Your task to perform on an android device: remove spam from my inbox in the gmail app Image 0: 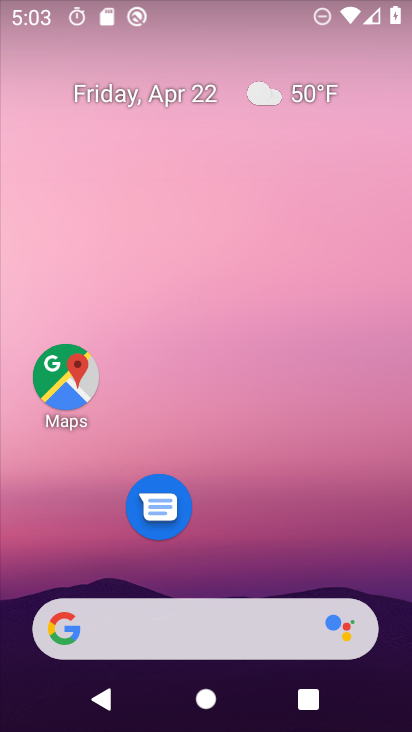
Step 0: drag from (195, 539) to (265, 41)
Your task to perform on an android device: remove spam from my inbox in the gmail app Image 1: 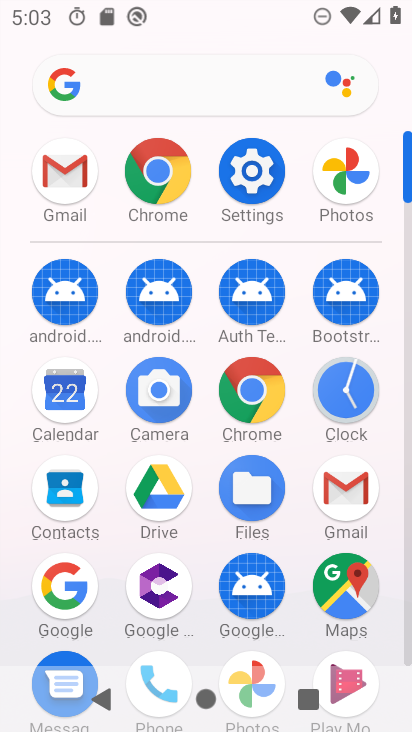
Step 1: click (59, 174)
Your task to perform on an android device: remove spam from my inbox in the gmail app Image 2: 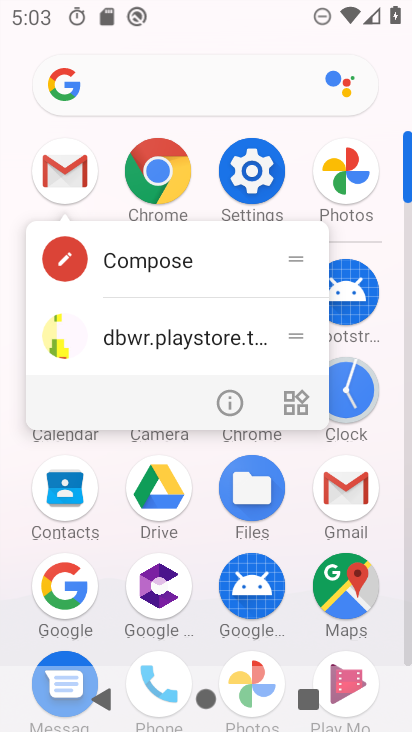
Step 2: click (55, 160)
Your task to perform on an android device: remove spam from my inbox in the gmail app Image 3: 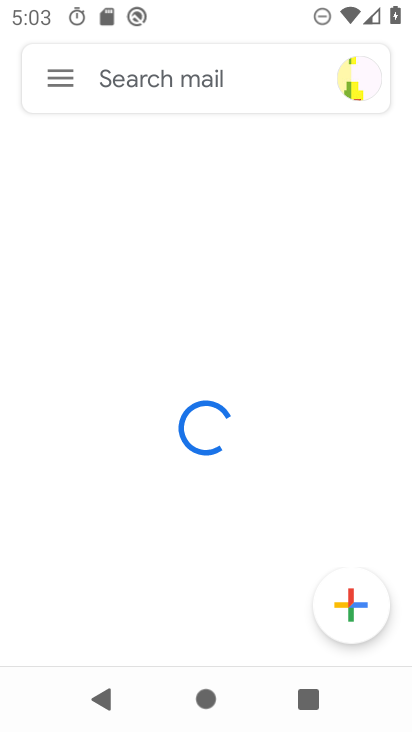
Step 3: click (60, 80)
Your task to perform on an android device: remove spam from my inbox in the gmail app Image 4: 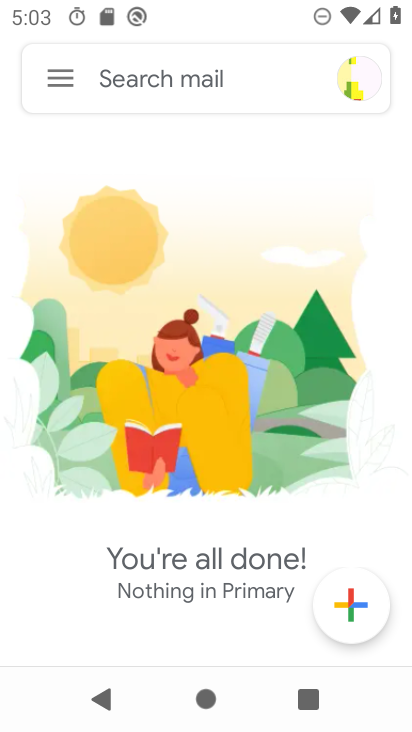
Step 4: click (70, 75)
Your task to perform on an android device: remove spam from my inbox in the gmail app Image 5: 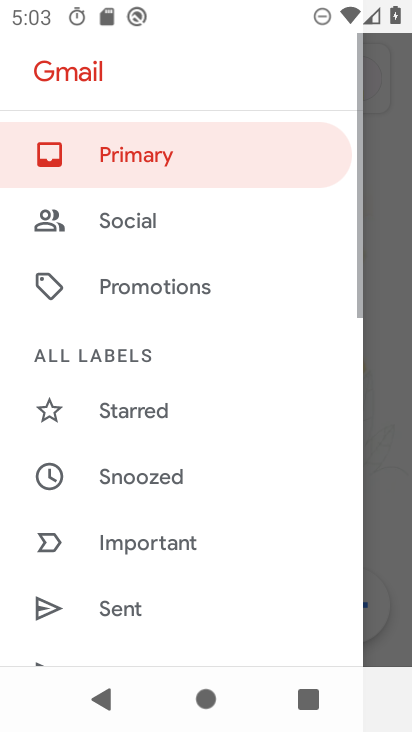
Step 5: drag from (188, 544) to (270, 33)
Your task to perform on an android device: remove spam from my inbox in the gmail app Image 6: 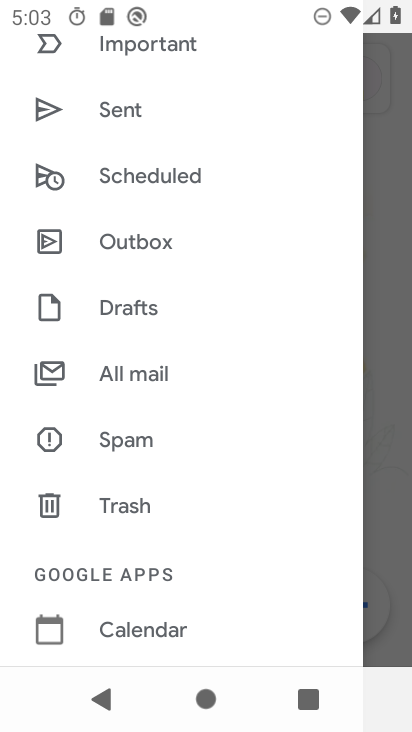
Step 6: click (140, 441)
Your task to perform on an android device: remove spam from my inbox in the gmail app Image 7: 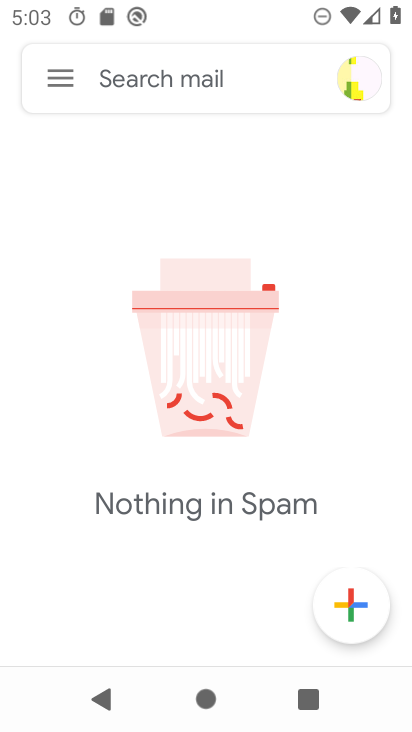
Step 7: task complete